Your task to perform on an android device: What's the latest news in astronomy? Image 0: 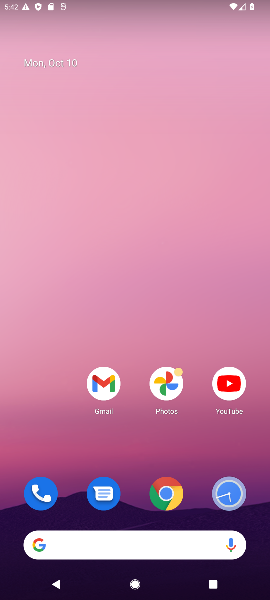
Step 0: click (146, 534)
Your task to perform on an android device: What's the latest news in astronomy? Image 1: 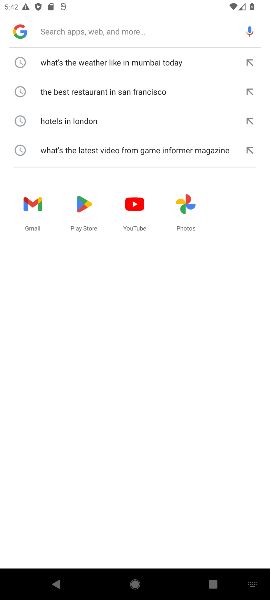
Step 1: type "What's the latest news in astronomy?"
Your task to perform on an android device: What's the latest news in astronomy? Image 2: 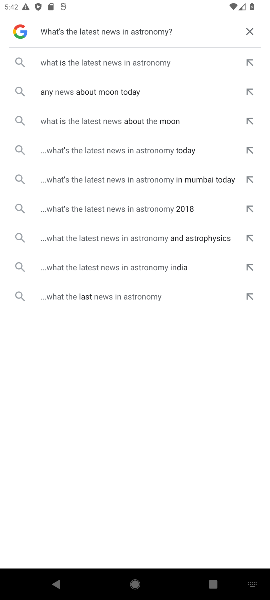
Step 2: click (150, 62)
Your task to perform on an android device: What's the latest news in astronomy? Image 3: 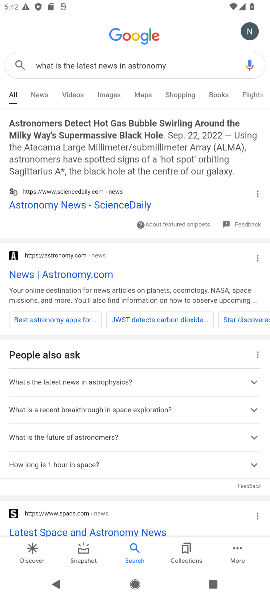
Step 3: task complete